Your task to perform on an android device: install app "Airtel Thanks" Image 0: 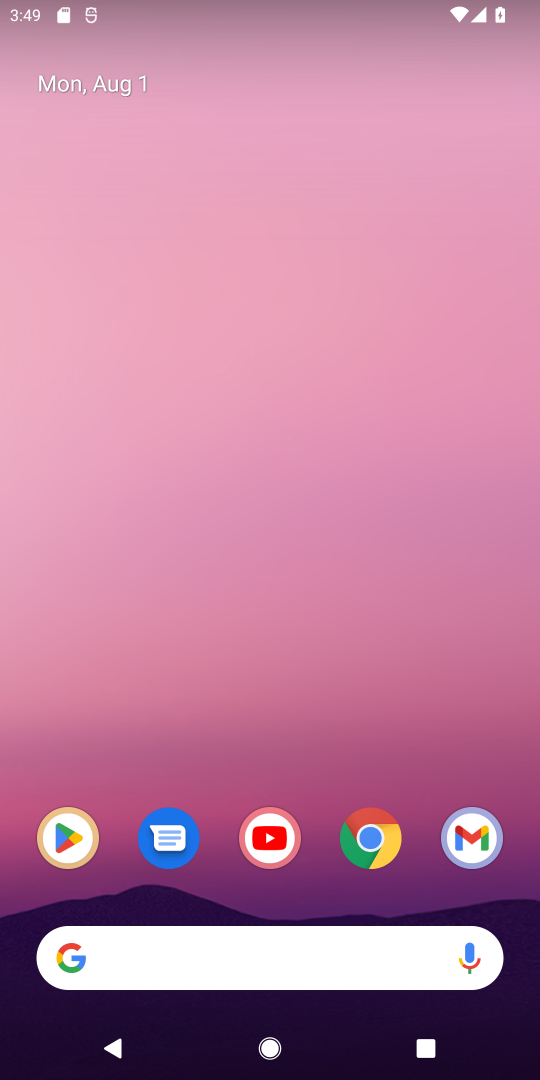
Step 0: click (80, 827)
Your task to perform on an android device: install app "Airtel Thanks" Image 1: 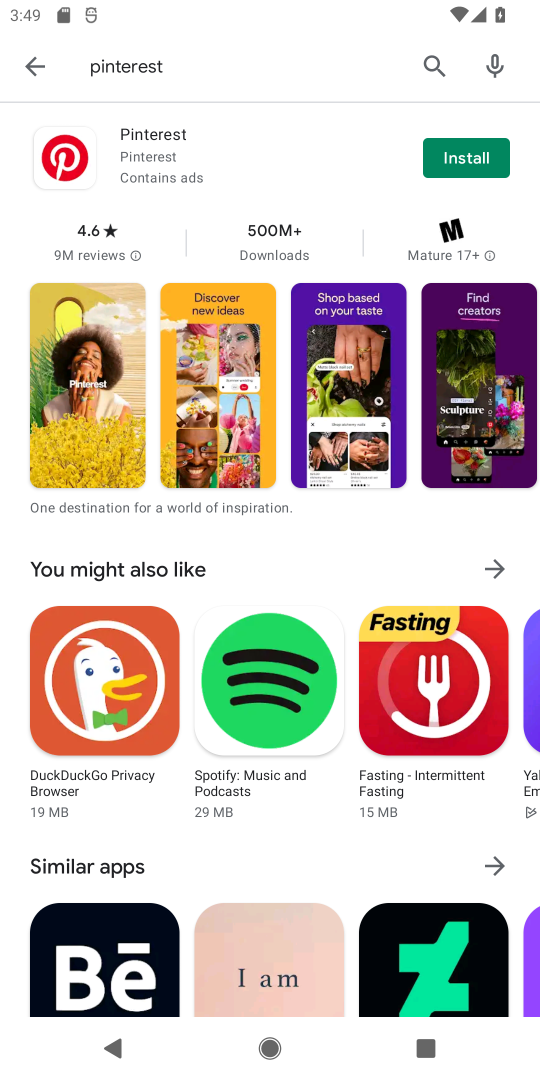
Step 1: click (443, 72)
Your task to perform on an android device: install app "Airtel Thanks" Image 2: 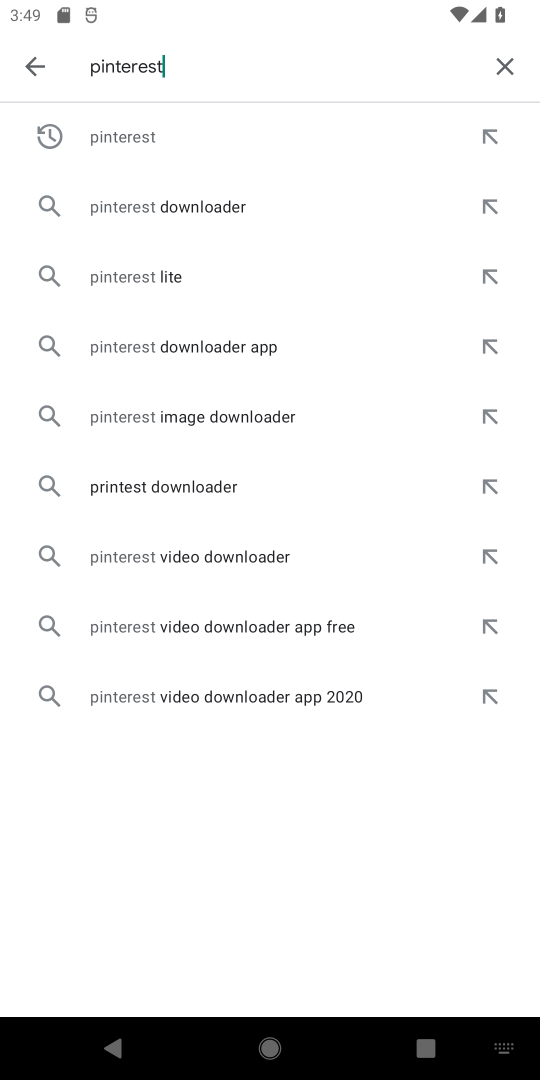
Step 2: click (497, 66)
Your task to perform on an android device: install app "Airtel Thanks" Image 3: 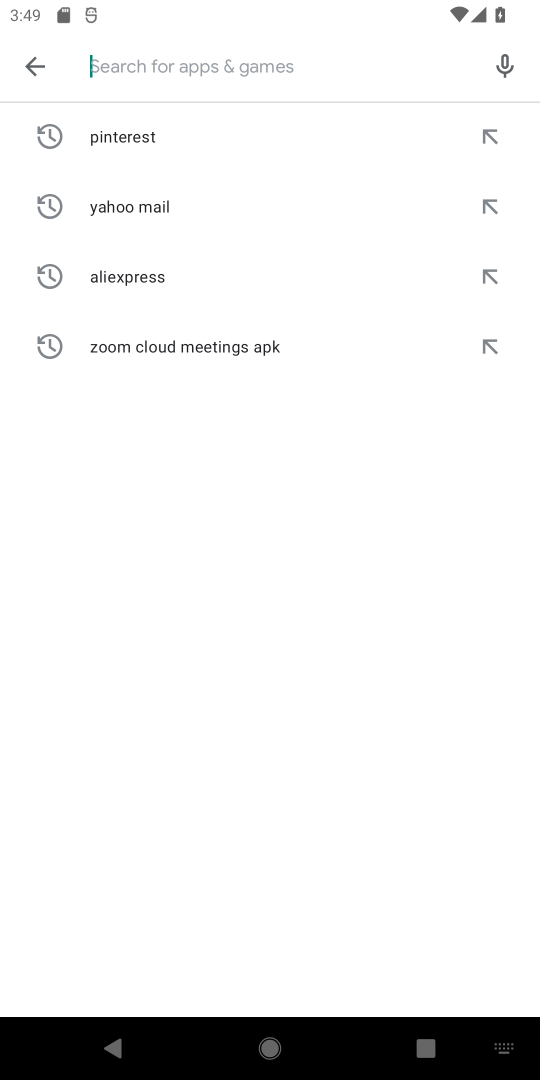
Step 3: type "Airtel Thanks"
Your task to perform on an android device: install app "Airtel Thanks" Image 4: 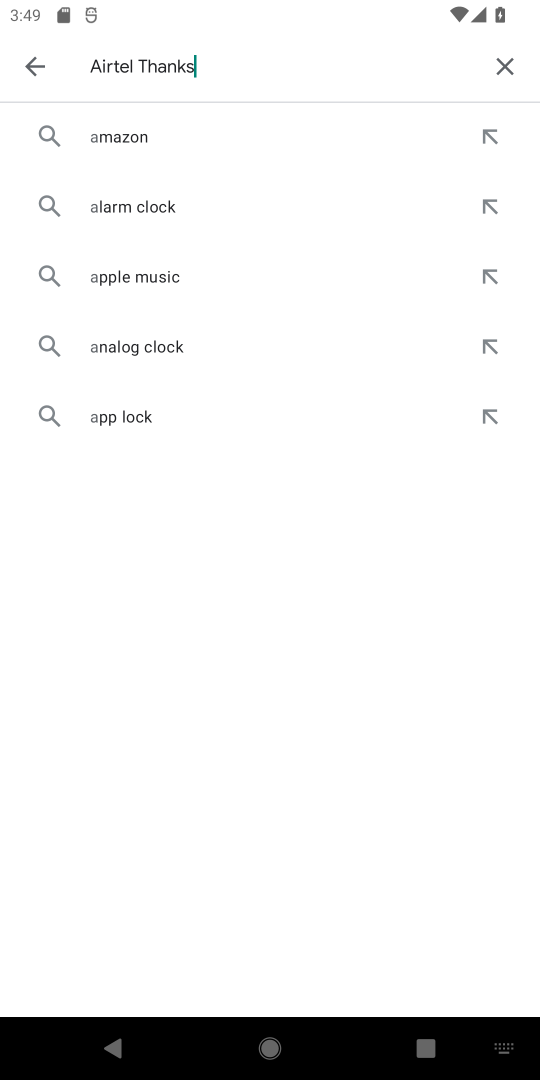
Step 4: type ""
Your task to perform on an android device: install app "Airtel Thanks" Image 5: 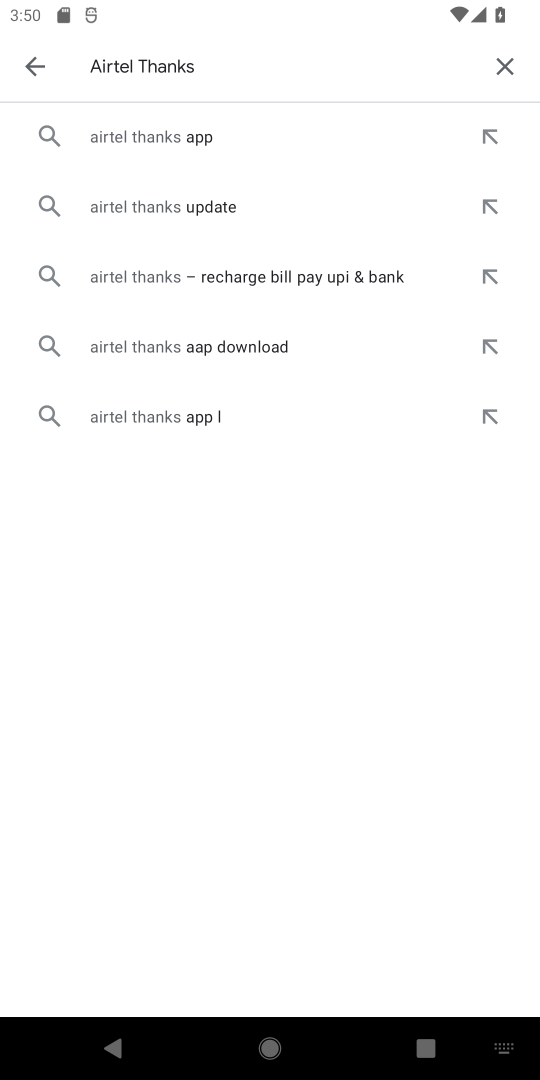
Step 5: click (196, 147)
Your task to perform on an android device: install app "Airtel Thanks" Image 6: 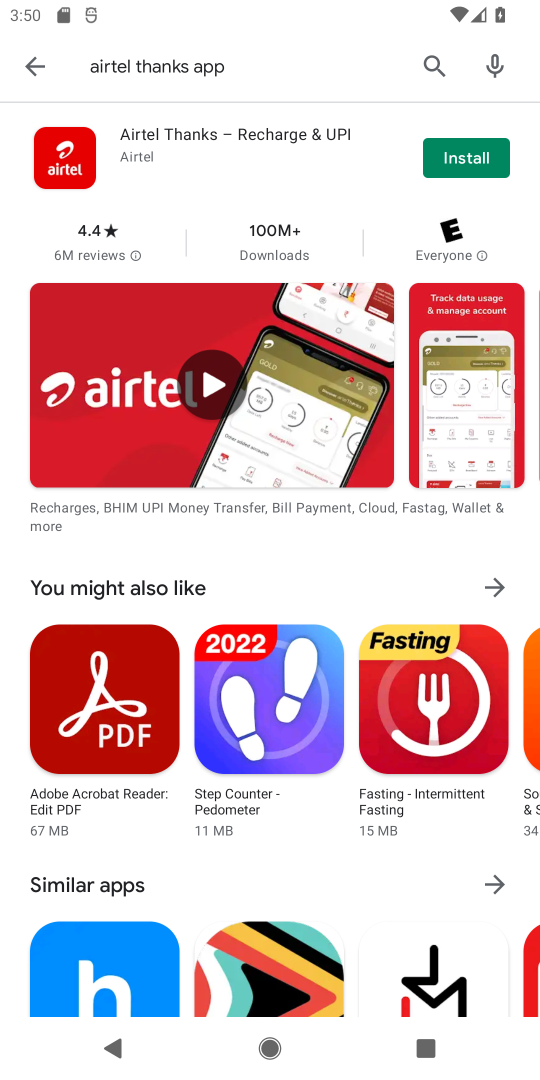
Step 6: click (466, 143)
Your task to perform on an android device: install app "Airtel Thanks" Image 7: 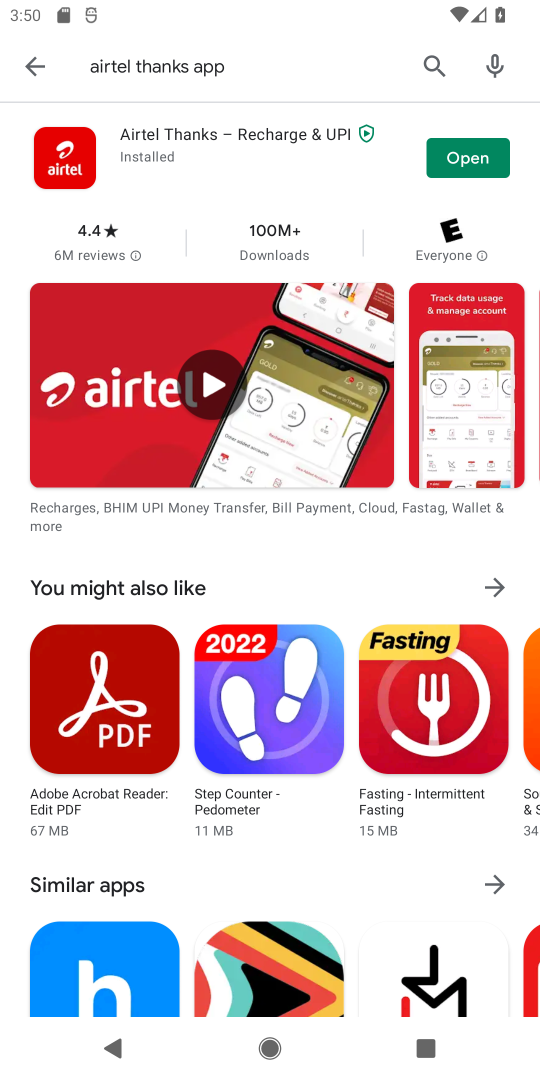
Step 7: task complete